Your task to perform on an android device: turn on airplane mode Image 0: 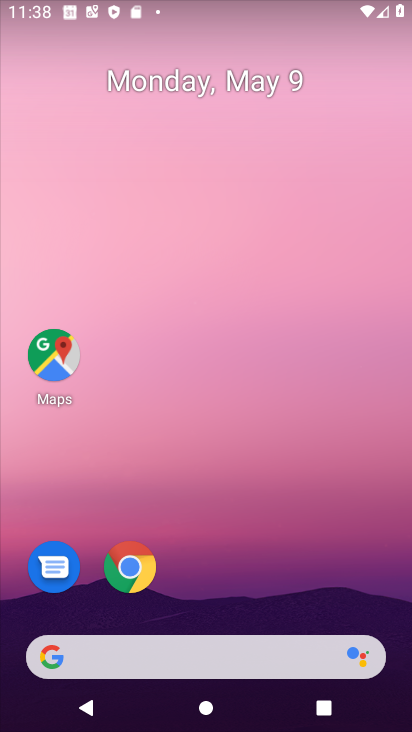
Step 0: drag from (195, 633) to (230, 184)
Your task to perform on an android device: turn on airplane mode Image 1: 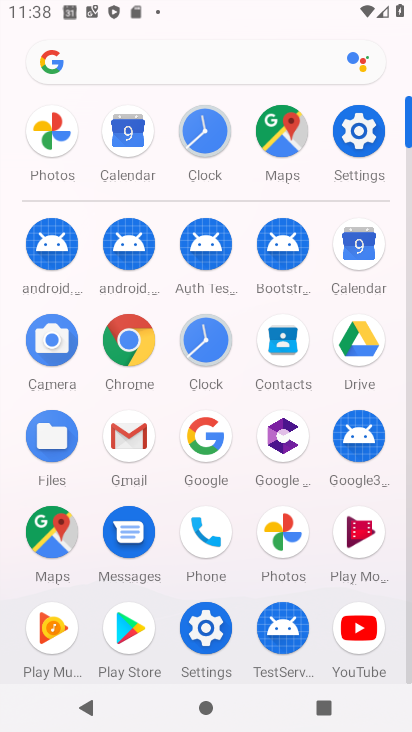
Step 1: click (360, 127)
Your task to perform on an android device: turn on airplane mode Image 2: 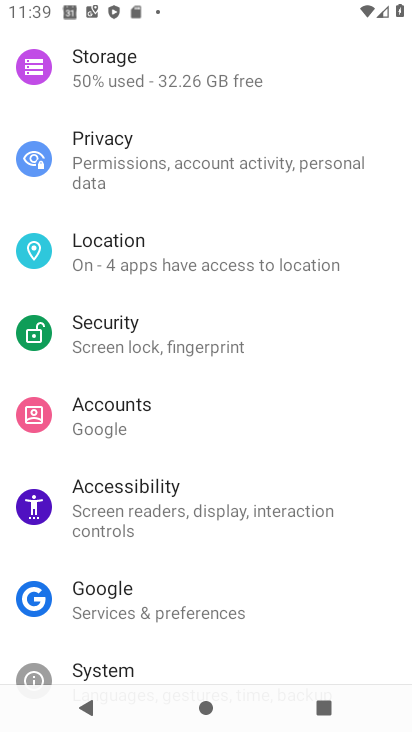
Step 2: drag from (270, 142) to (245, 618)
Your task to perform on an android device: turn on airplane mode Image 3: 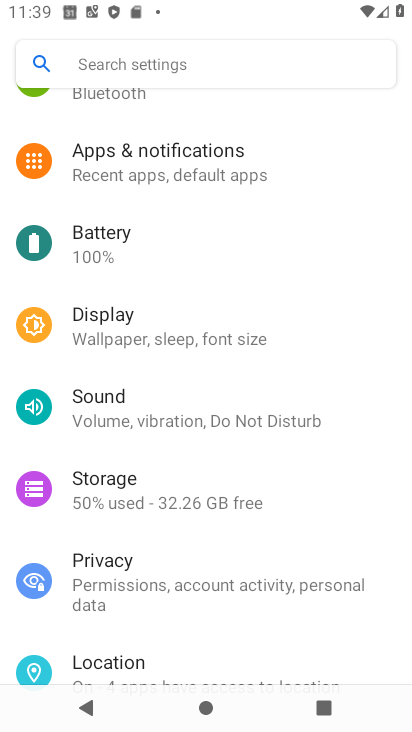
Step 3: drag from (238, 139) to (185, 626)
Your task to perform on an android device: turn on airplane mode Image 4: 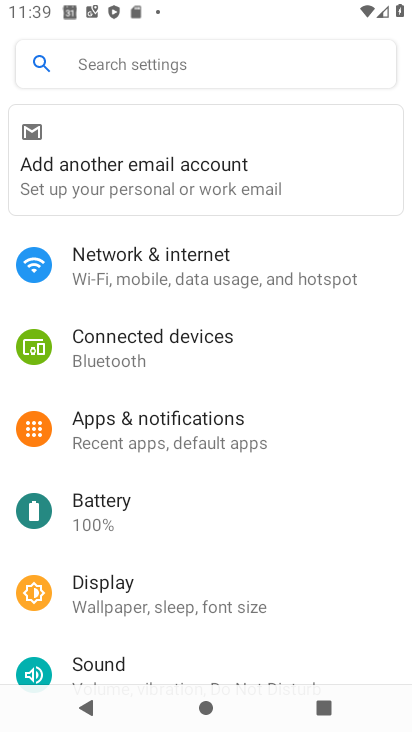
Step 4: click (208, 260)
Your task to perform on an android device: turn on airplane mode Image 5: 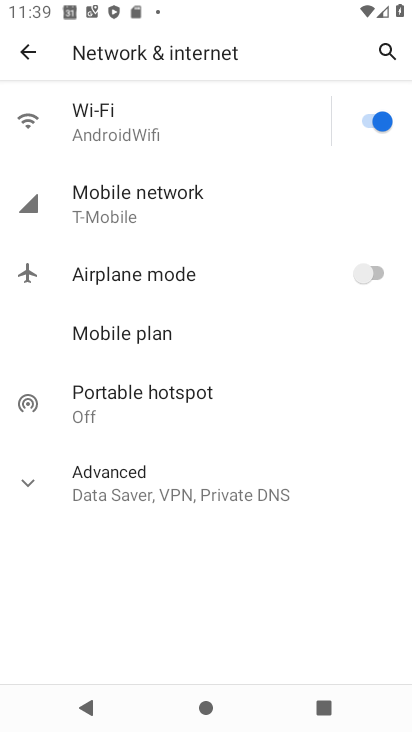
Step 5: click (358, 268)
Your task to perform on an android device: turn on airplane mode Image 6: 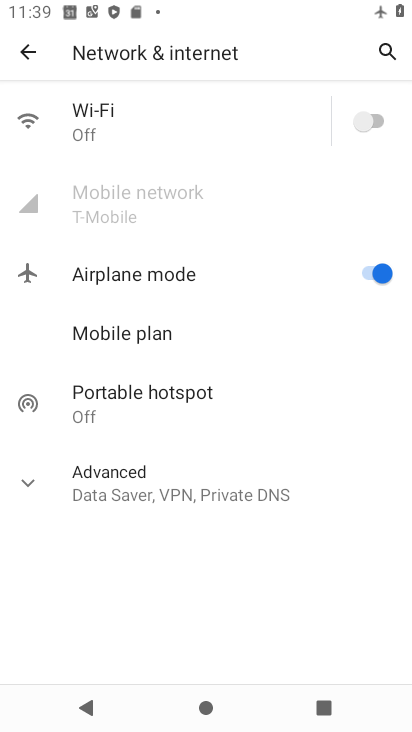
Step 6: task complete